Your task to perform on an android device: open a bookmark in the chrome app Image 0: 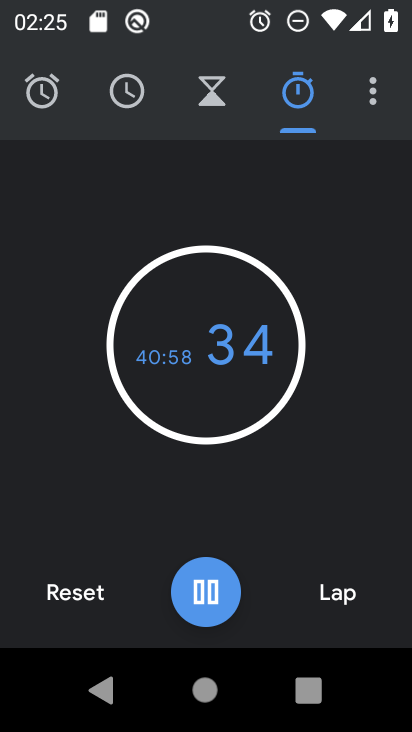
Step 0: press home button
Your task to perform on an android device: open a bookmark in the chrome app Image 1: 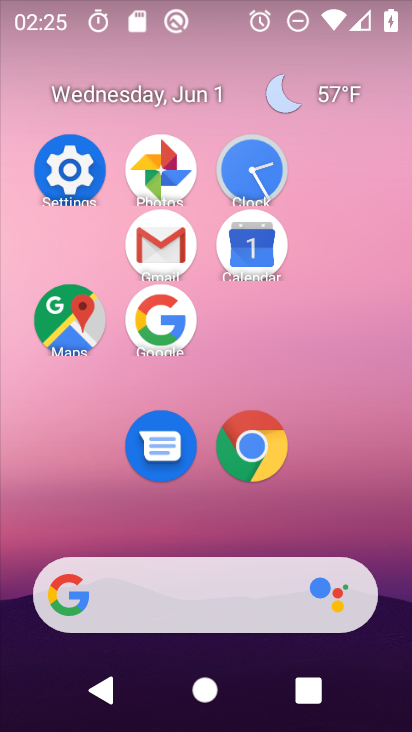
Step 1: click (278, 435)
Your task to perform on an android device: open a bookmark in the chrome app Image 2: 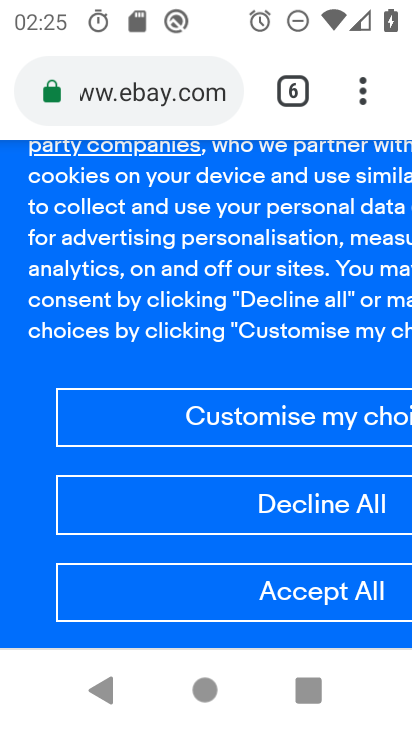
Step 2: click (371, 87)
Your task to perform on an android device: open a bookmark in the chrome app Image 3: 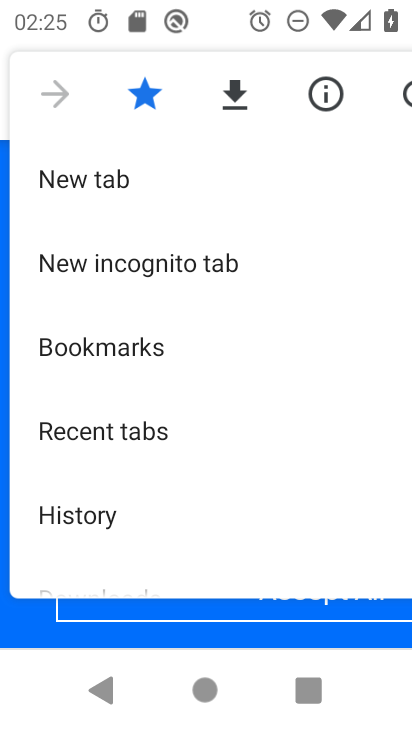
Step 3: click (18, 340)
Your task to perform on an android device: open a bookmark in the chrome app Image 4: 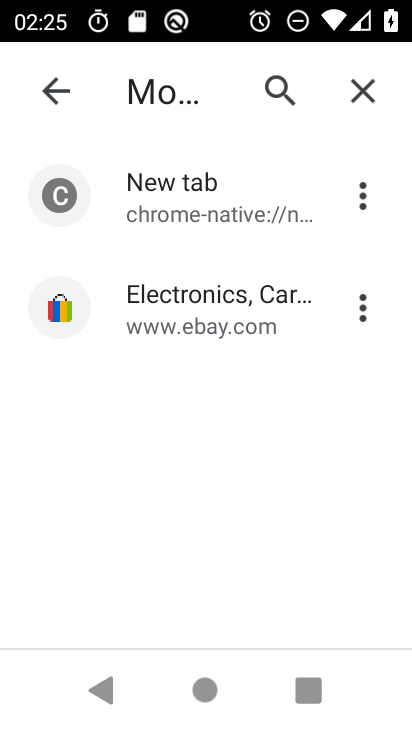
Step 4: click (218, 179)
Your task to perform on an android device: open a bookmark in the chrome app Image 5: 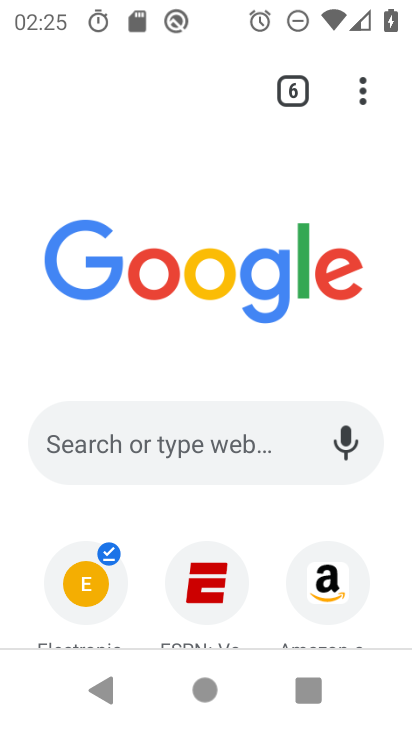
Step 5: task complete